Your task to perform on an android device: Toggle the flashlight Image 0: 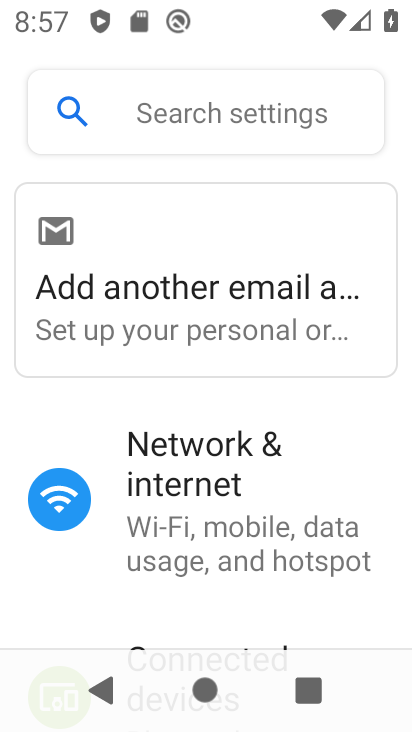
Step 0: click (194, 118)
Your task to perform on an android device: Toggle the flashlight Image 1: 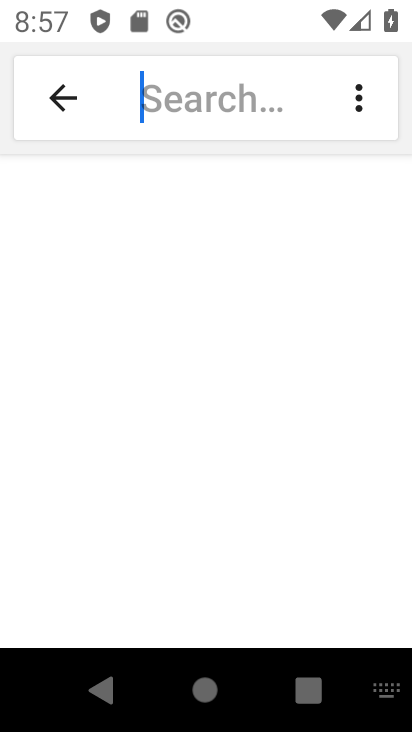
Step 1: type "flashlight"
Your task to perform on an android device: Toggle the flashlight Image 2: 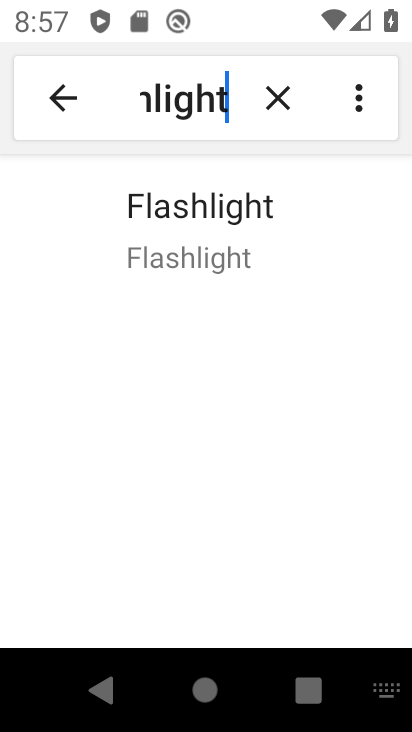
Step 2: click (160, 223)
Your task to perform on an android device: Toggle the flashlight Image 3: 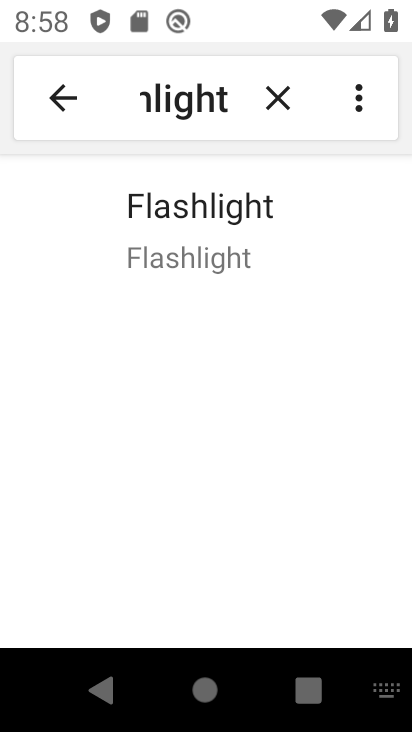
Step 3: click (195, 231)
Your task to perform on an android device: Toggle the flashlight Image 4: 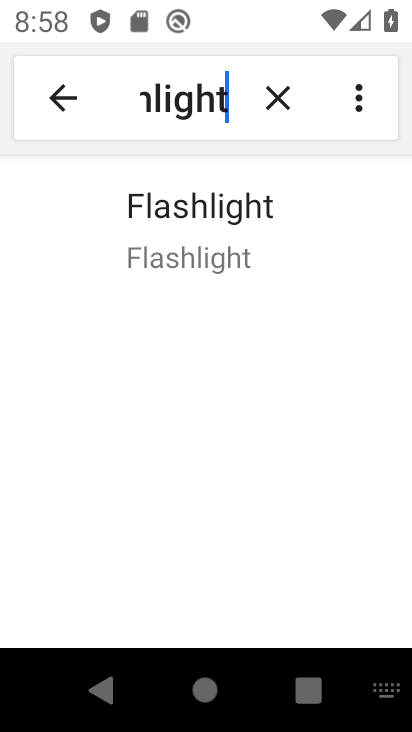
Step 4: task complete